Your task to perform on an android device: What is the recent news? Image 0: 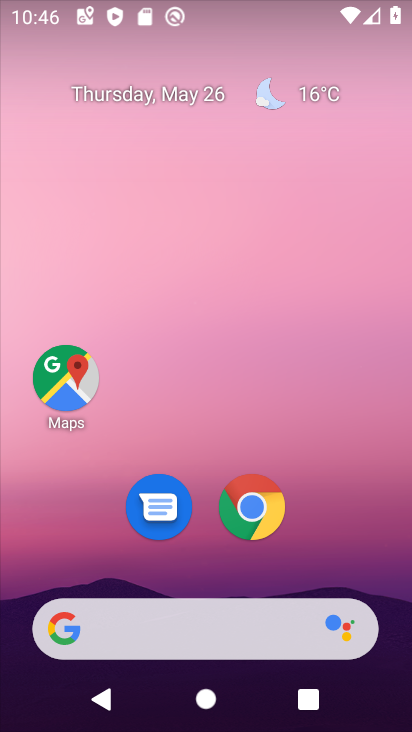
Step 0: drag from (175, 606) to (173, 179)
Your task to perform on an android device: What is the recent news? Image 1: 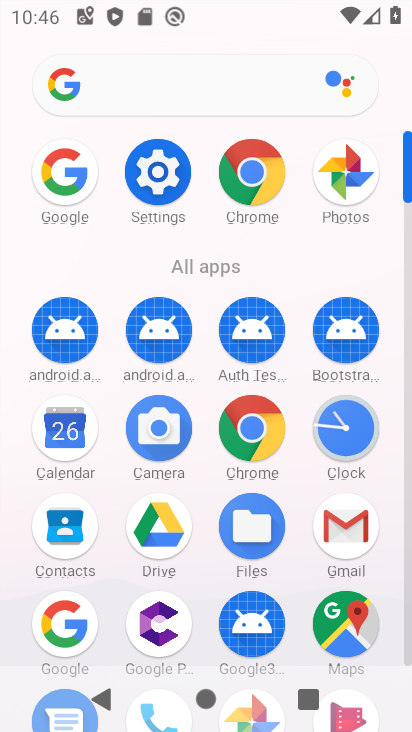
Step 1: click (71, 641)
Your task to perform on an android device: What is the recent news? Image 2: 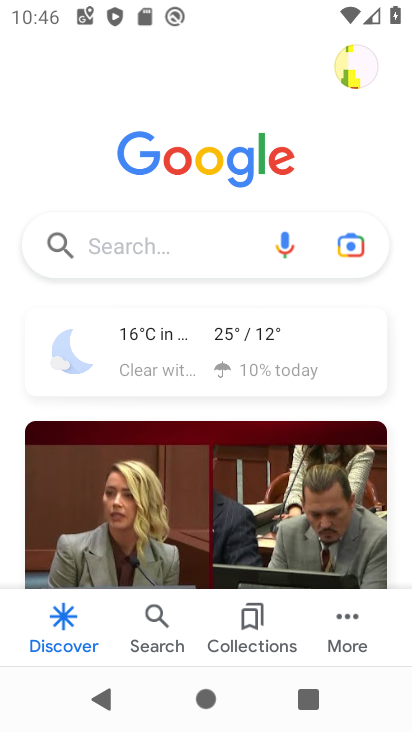
Step 2: click (203, 272)
Your task to perform on an android device: What is the recent news? Image 3: 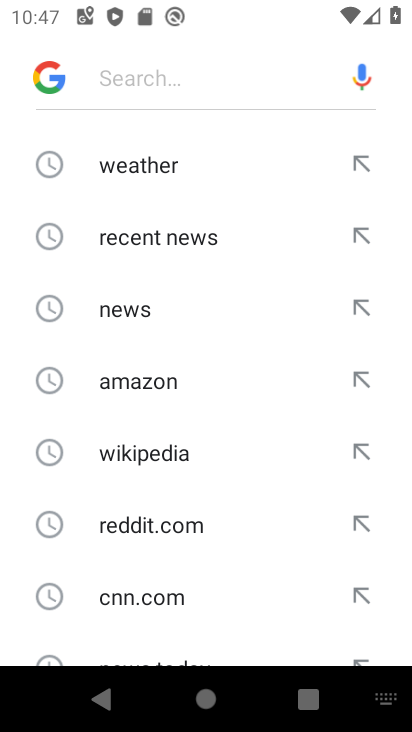
Step 3: drag from (190, 575) to (168, 373)
Your task to perform on an android device: What is the recent news? Image 4: 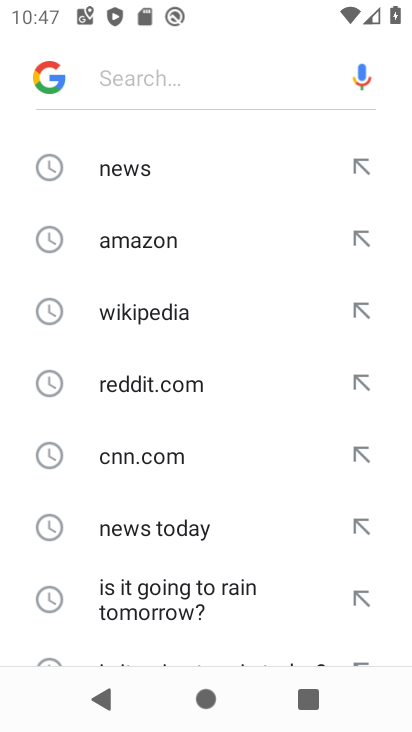
Step 4: drag from (171, 132) to (185, 598)
Your task to perform on an android device: What is the recent news? Image 5: 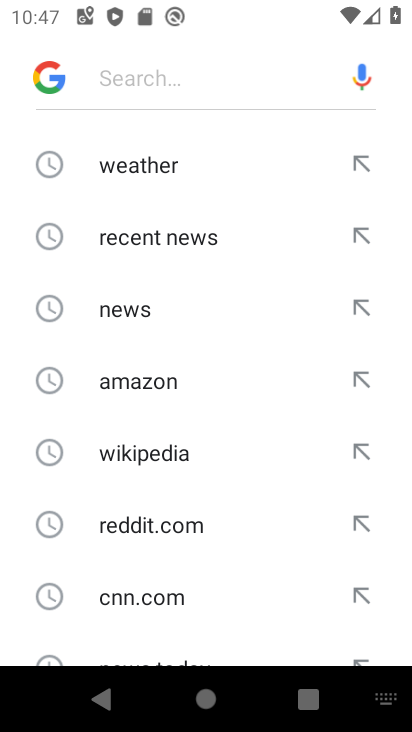
Step 5: click (155, 240)
Your task to perform on an android device: What is the recent news? Image 6: 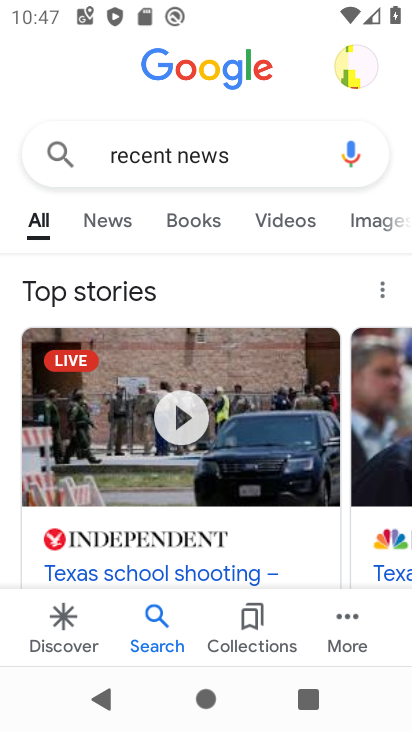
Step 6: task complete